Your task to perform on an android device: Open the calendar app, open the side menu, and click the "Day" option Image 0: 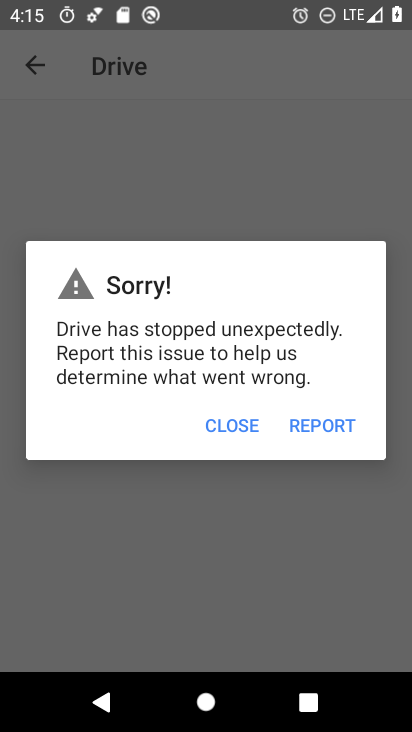
Step 0: press home button
Your task to perform on an android device: Open the calendar app, open the side menu, and click the "Day" option Image 1: 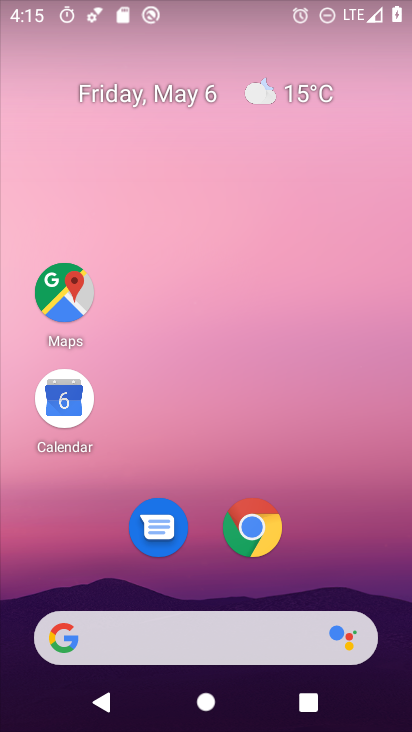
Step 1: drag from (342, 517) to (355, 1)
Your task to perform on an android device: Open the calendar app, open the side menu, and click the "Day" option Image 2: 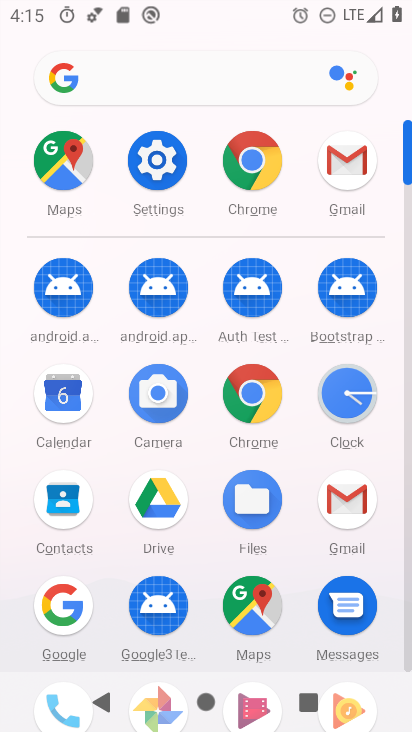
Step 2: click (72, 395)
Your task to perform on an android device: Open the calendar app, open the side menu, and click the "Day" option Image 3: 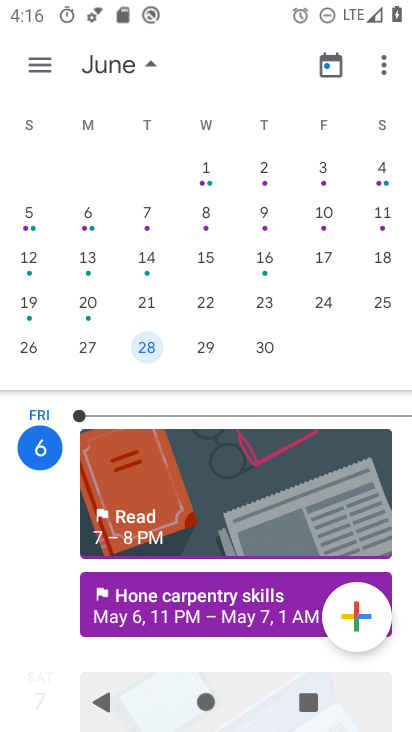
Step 3: click (47, 58)
Your task to perform on an android device: Open the calendar app, open the side menu, and click the "Day" option Image 4: 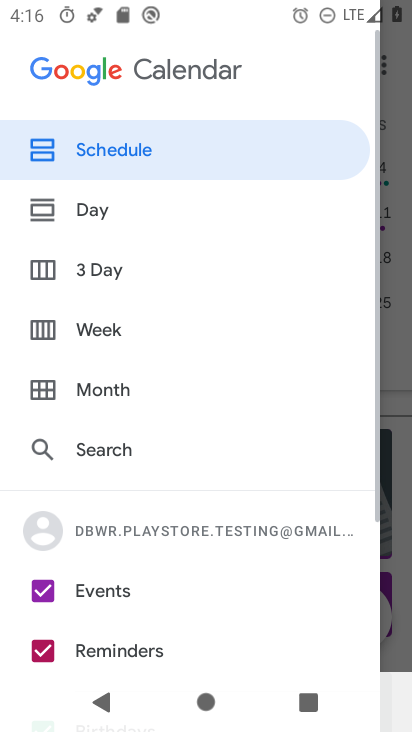
Step 4: click (80, 212)
Your task to perform on an android device: Open the calendar app, open the side menu, and click the "Day" option Image 5: 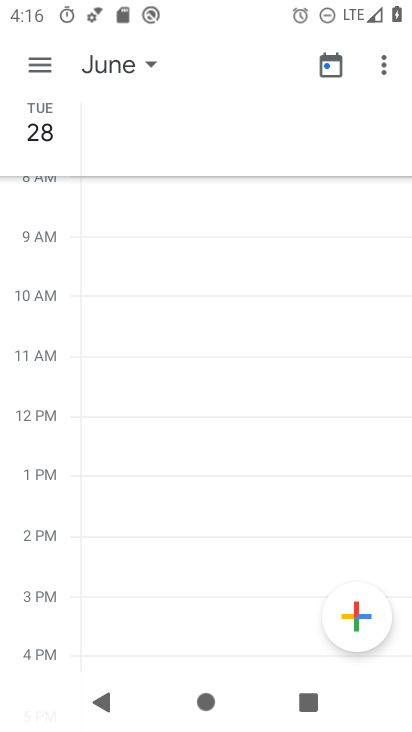
Step 5: task complete